Your task to perform on an android device: snooze an email in the gmail app Image 0: 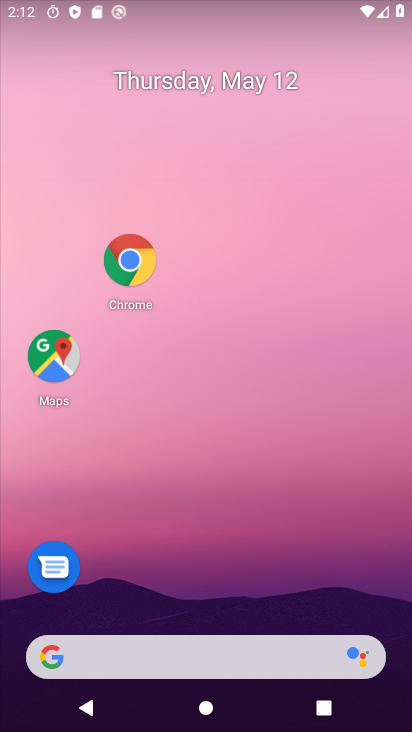
Step 0: drag from (186, 635) to (201, 307)
Your task to perform on an android device: snooze an email in the gmail app Image 1: 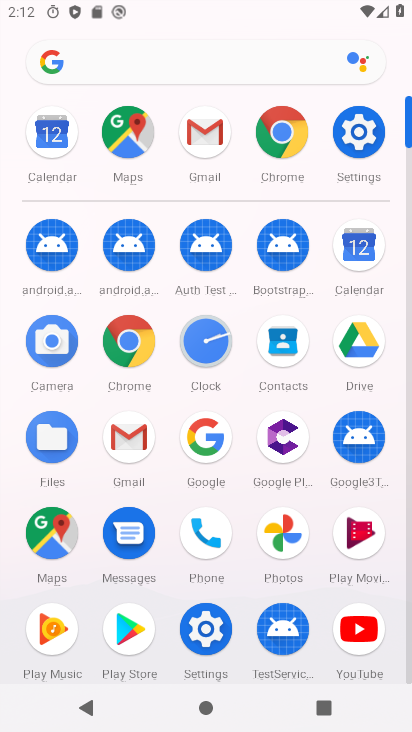
Step 1: click (210, 140)
Your task to perform on an android device: snooze an email in the gmail app Image 2: 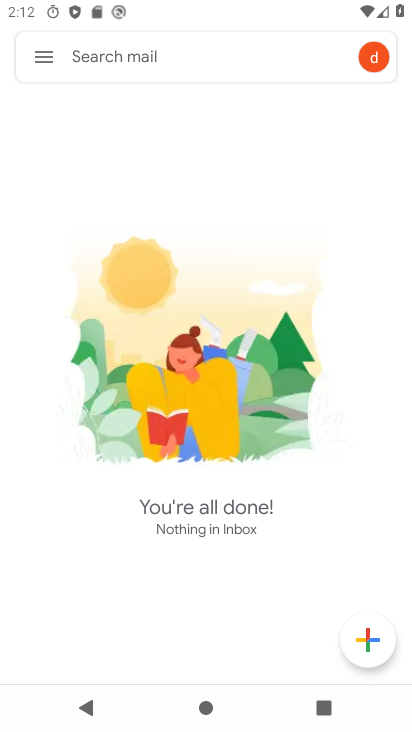
Step 2: click (46, 61)
Your task to perform on an android device: snooze an email in the gmail app Image 3: 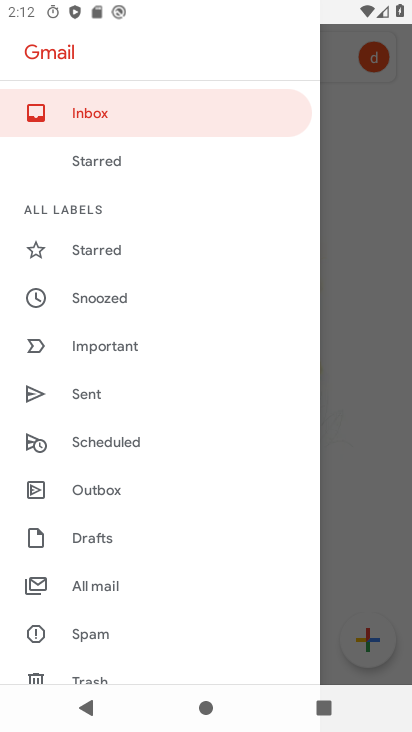
Step 3: click (123, 296)
Your task to perform on an android device: snooze an email in the gmail app Image 4: 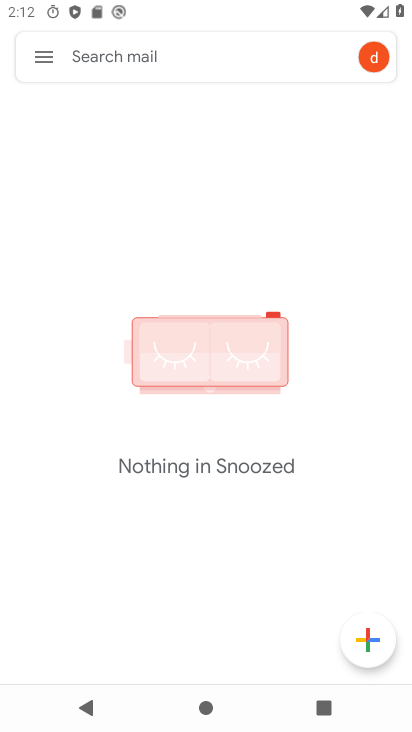
Step 4: task complete